Your task to perform on an android device: Open Wikipedia Image 0: 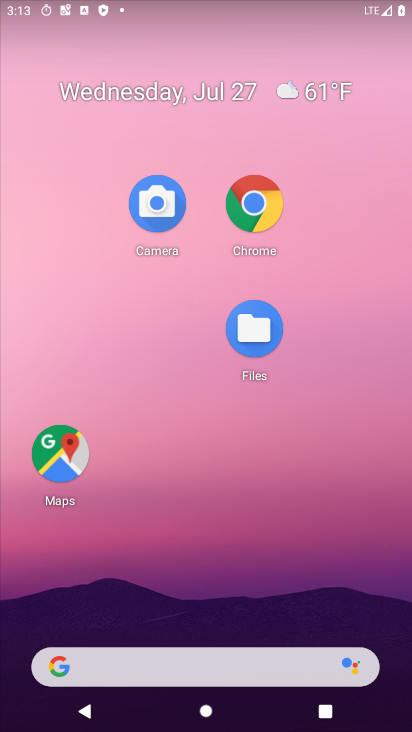
Step 0: click (242, 200)
Your task to perform on an android device: Open Wikipedia Image 1: 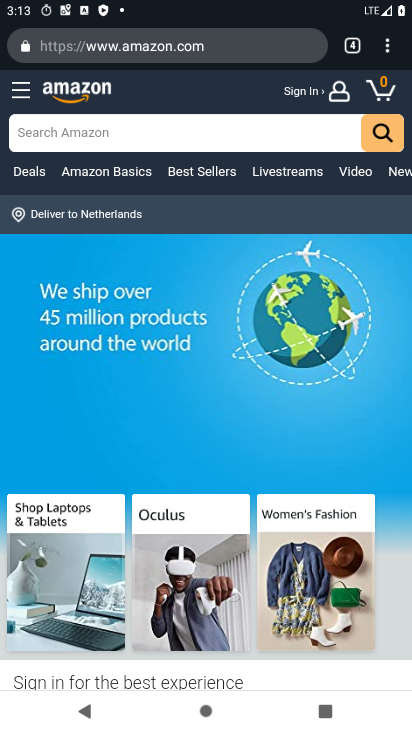
Step 1: click (388, 33)
Your task to perform on an android device: Open Wikipedia Image 2: 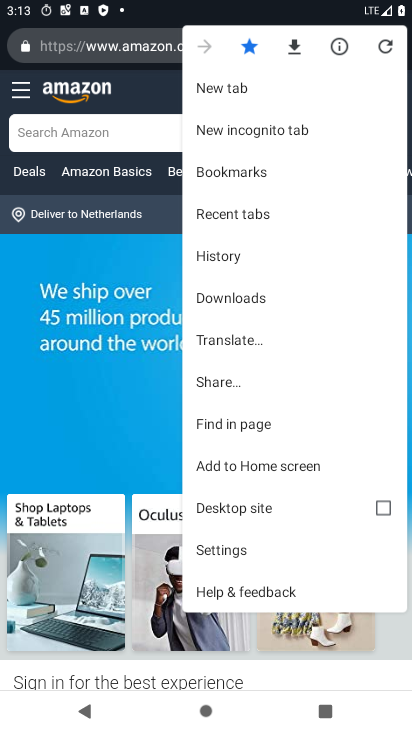
Step 2: click (363, 47)
Your task to perform on an android device: Open Wikipedia Image 3: 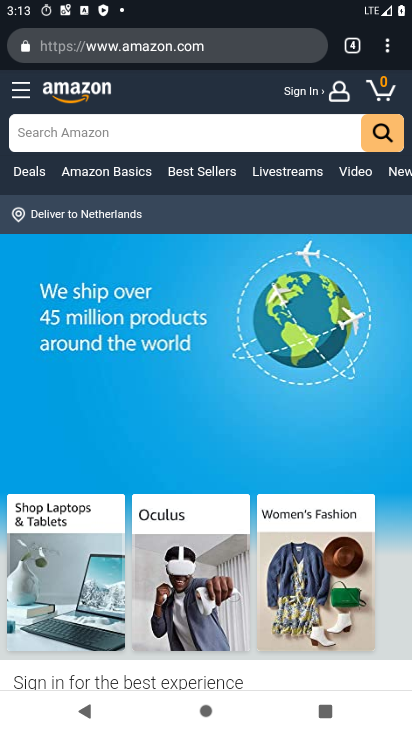
Step 3: click (349, 46)
Your task to perform on an android device: Open Wikipedia Image 4: 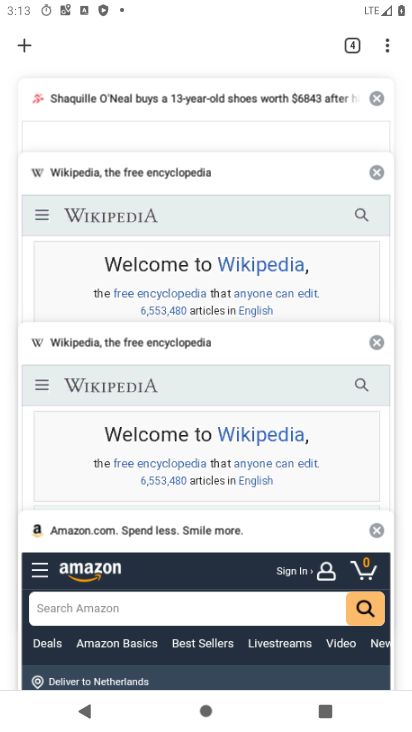
Step 4: click (18, 51)
Your task to perform on an android device: Open Wikipedia Image 5: 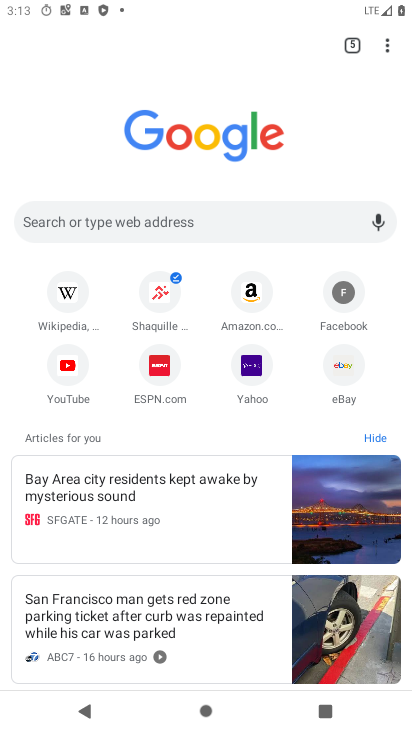
Step 5: click (53, 285)
Your task to perform on an android device: Open Wikipedia Image 6: 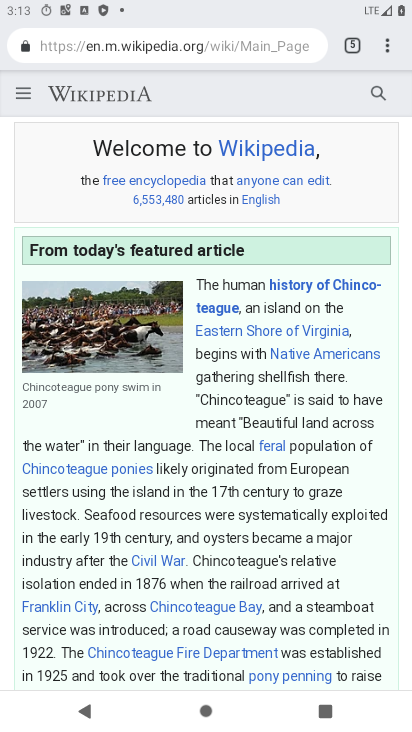
Step 6: task complete